Your task to perform on an android device: open app "Roku - Official Remote Control" (install if not already installed) Image 0: 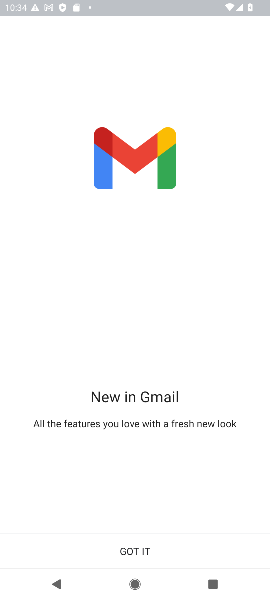
Step 0: press home button
Your task to perform on an android device: open app "Roku - Official Remote Control" (install if not already installed) Image 1: 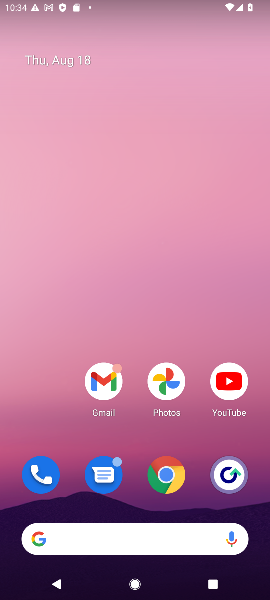
Step 1: drag from (115, 498) to (54, 20)
Your task to perform on an android device: open app "Roku - Official Remote Control" (install if not already installed) Image 2: 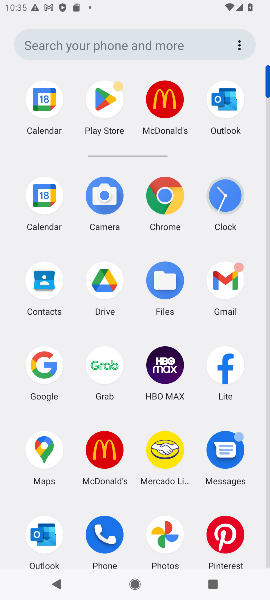
Step 2: click (97, 111)
Your task to perform on an android device: open app "Roku - Official Remote Control" (install if not already installed) Image 3: 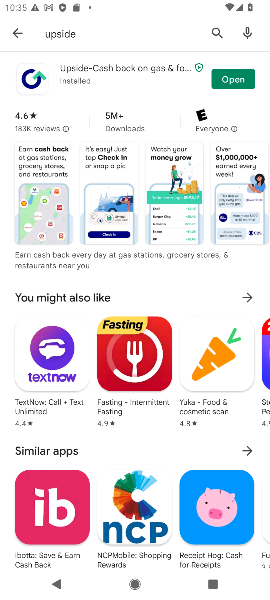
Step 3: click (16, 31)
Your task to perform on an android device: open app "Roku - Official Remote Control" (install if not already installed) Image 4: 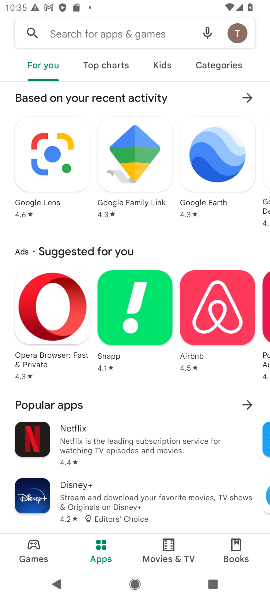
Step 4: click (64, 36)
Your task to perform on an android device: open app "Roku - Official Remote Control" (install if not already installed) Image 5: 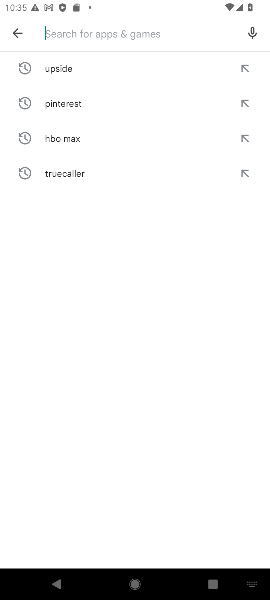
Step 5: type "Roku"
Your task to perform on an android device: open app "Roku - Official Remote Control" (install if not already installed) Image 6: 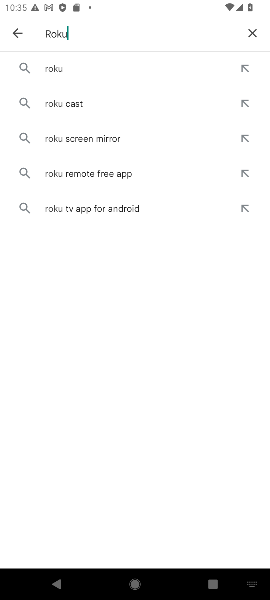
Step 6: click (35, 70)
Your task to perform on an android device: open app "Roku - Official Remote Control" (install if not already installed) Image 7: 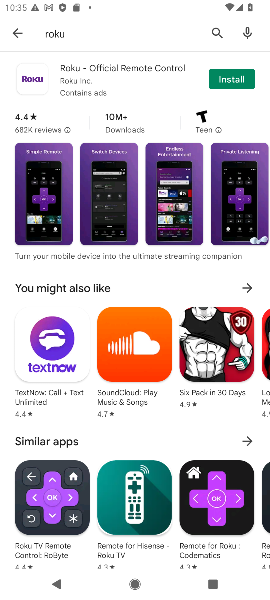
Step 7: click (245, 85)
Your task to perform on an android device: open app "Roku - Official Remote Control" (install if not already installed) Image 8: 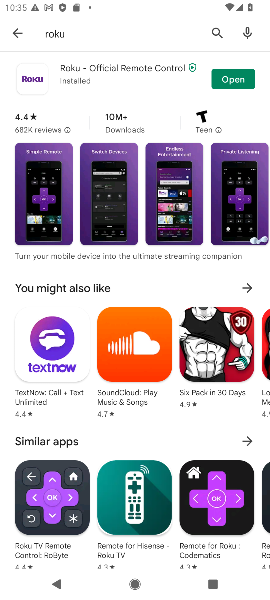
Step 8: click (231, 71)
Your task to perform on an android device: open app "Roku - Official Remote Control" (install if not already installed) Image 9: 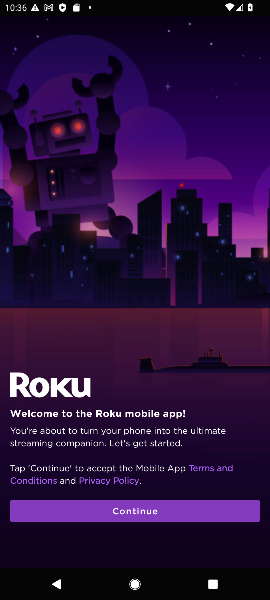
Step 9: task complete